Your task to perform on an android device: turn pop-ups off in chrome Image 0: 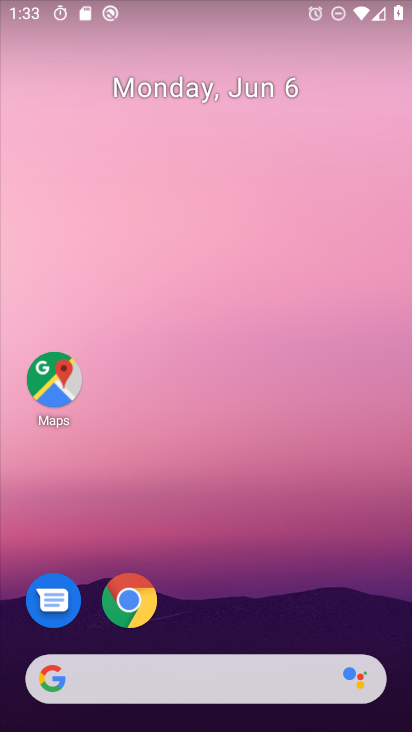
Step 0: click (148, 607)
Your task to perform on an android device: turn pop-ups off in chrome Image 1: 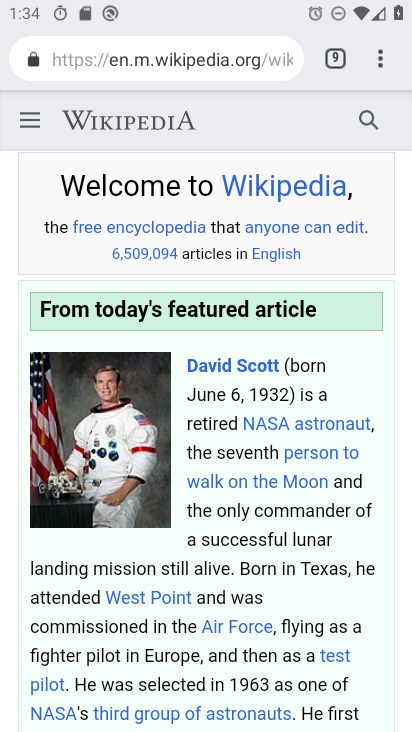
Step 1: click (382, 60)
Your task to perform on an android device: turn pop-ups off in chrome Image 2: 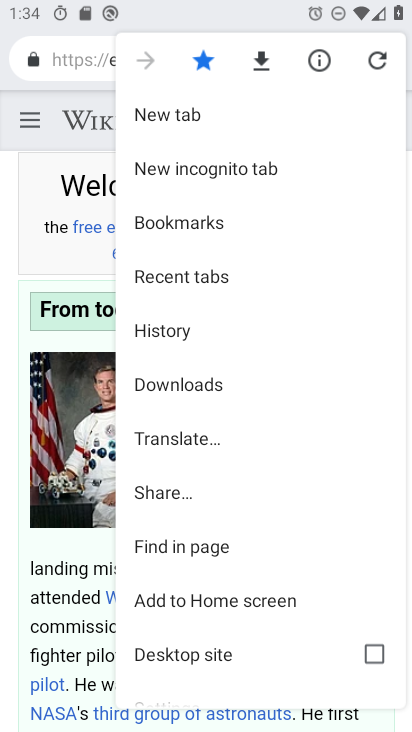
Step 2: drag from (242, 615) to (269, 339)
Your task to perform on an android device: turn pop-ups off in chrome Image 3: 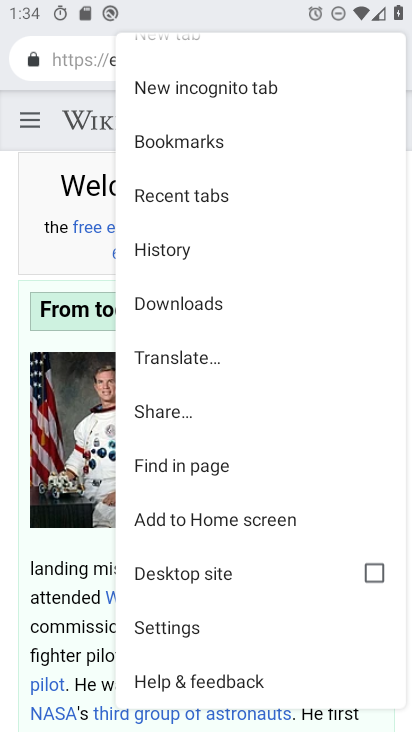
Step 3: click (198, 620)
Your task to perform on an android device: turn pop-ups off in chrome Image 4: 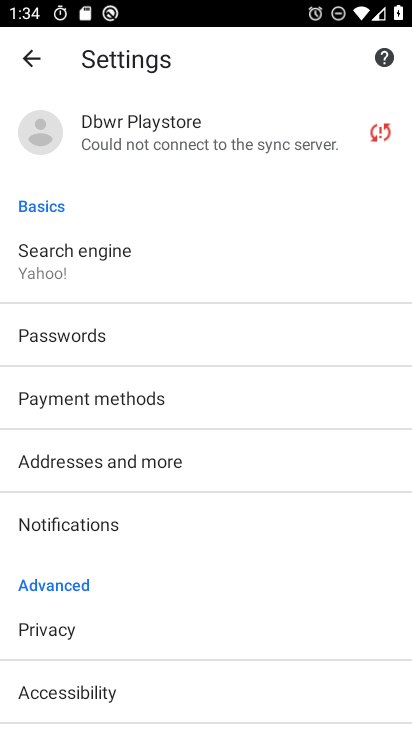
Step 4: drag from (224, 564) to (258, 283)
Your task to perform on an android device: turn pop-ups off in chrome Image 5: 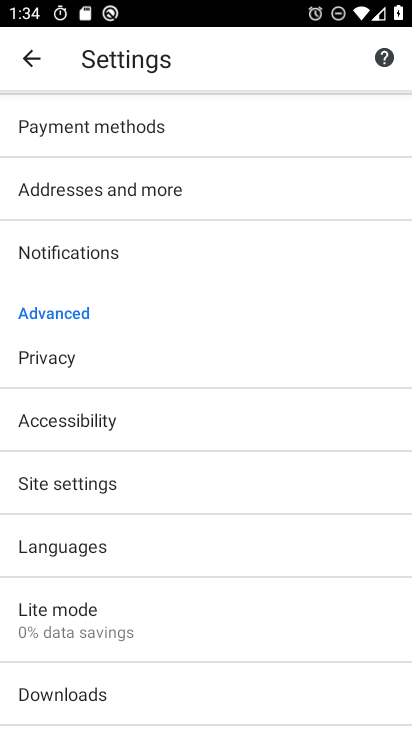
Step 5: click (145, 479)
Your task to perform on an android device: turn pop-ups off in chrome Image 6: 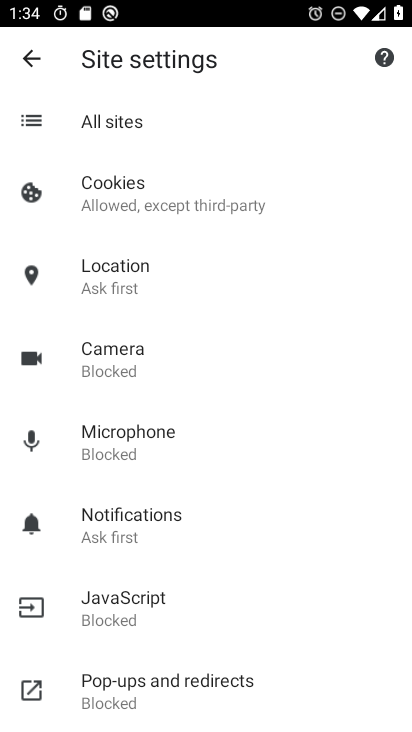
Step 6: click (255, 674)
Your task to perform on an android device: turn pop-ups off in chrome Image 7: 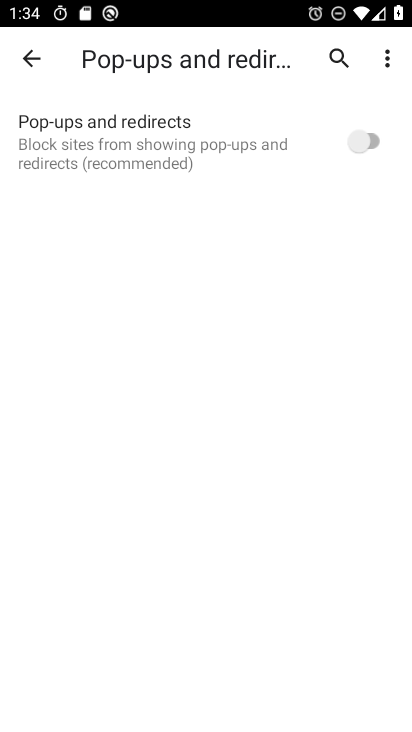
Step 7: task complete